Your task to perform on an android device: What is the recent news? Image 0: 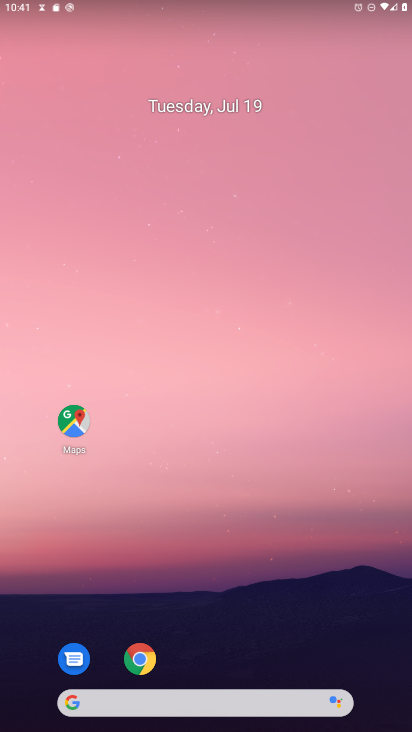
Step 0: drag from (262, 644) to (249, 350)
Your task to perform on an android device: What is the recent news? Image 1: 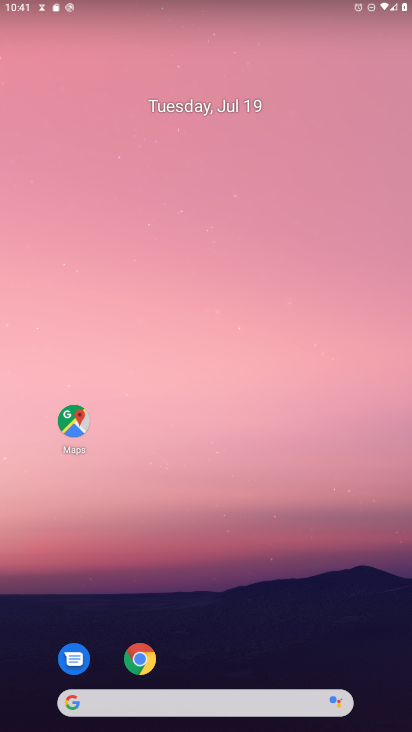
Step 1: drag from (217, 647) to (219, 218)
Your task to perform on an android device: What is the recent news? Image 2: 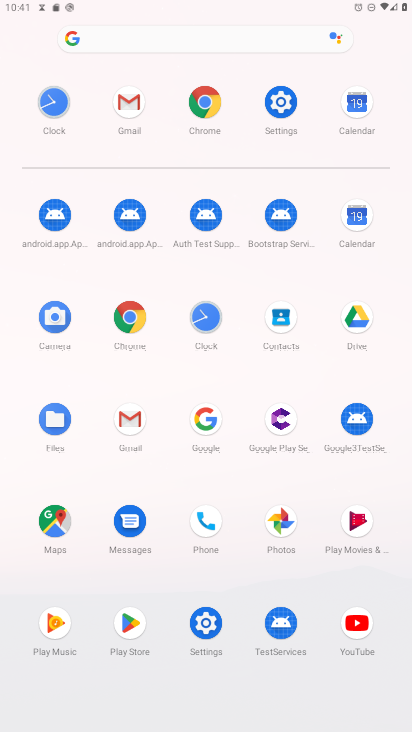
Step 2: click (213, 98)
Your task to perform on an android device: What is the recent news? Image 3: 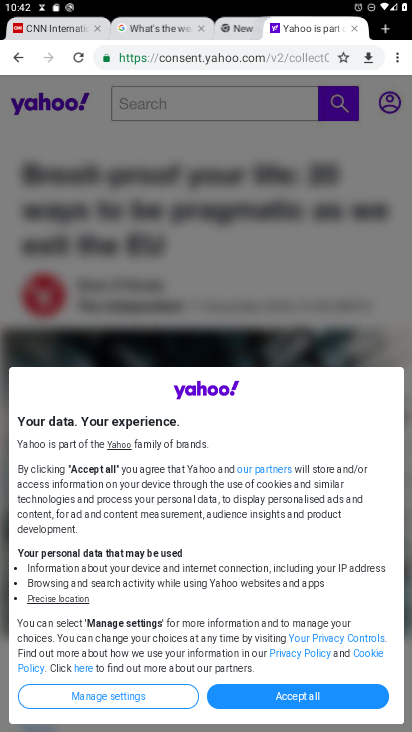
Step 3: click (386, 30)
Your task to perform on an android device: What is the recent news? Image 4: 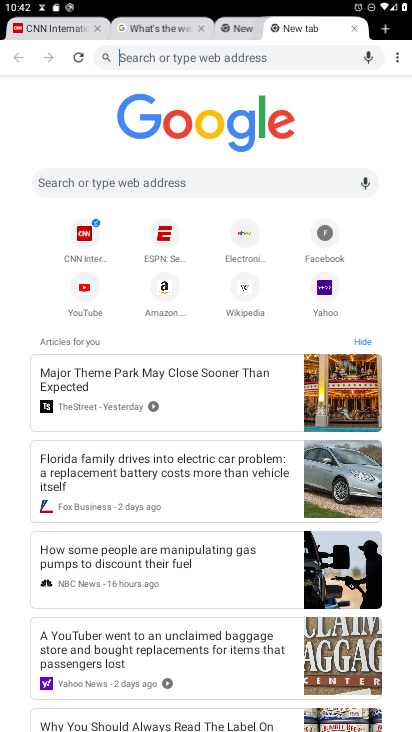
Step 4: click (193, 185)
Your task to perform on an android device: What is the recent news? Image 5: 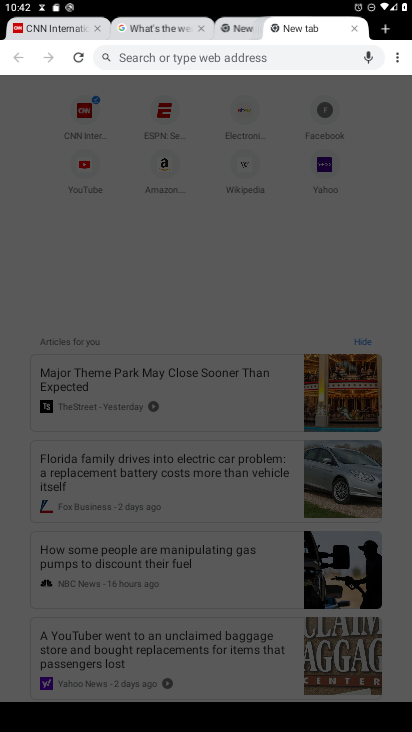
Step 5: type "What is the recent news "
Your task to perform on an android device: What is the recent news? Image 6: 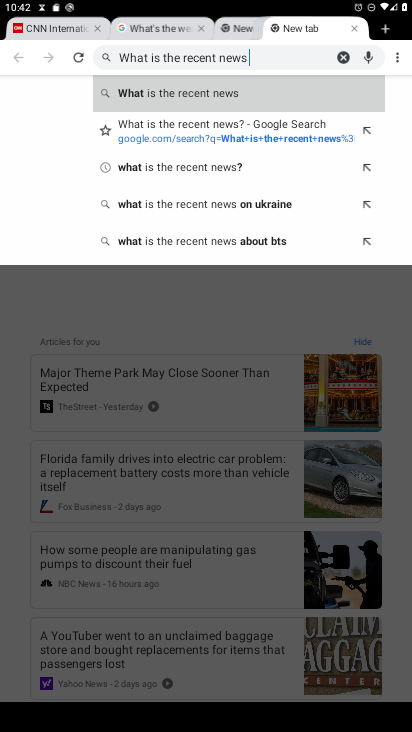
Step 6: click (214, 97)
Your task to perform on an android device: What is the recent news? Image 7: 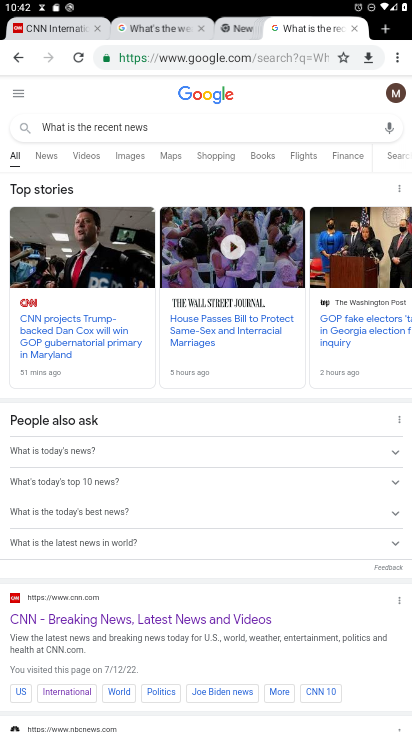
Step 7: task complete